Your task to perform on an android device: Go to CNN.com Image 0: 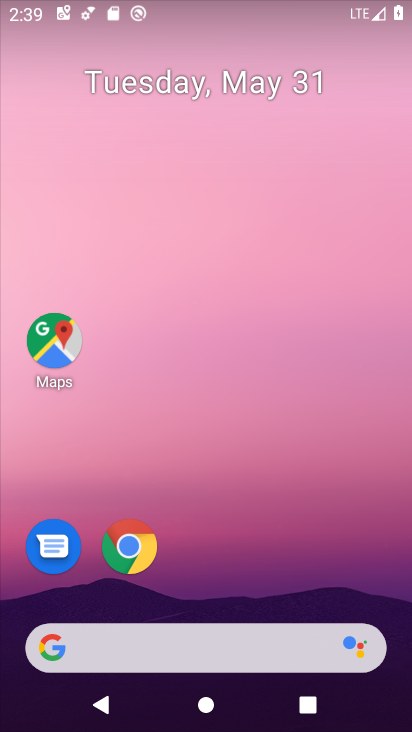
Step 0: click (156, 547)
Your task to perform on an android device: Go to CNN.com Image 1: 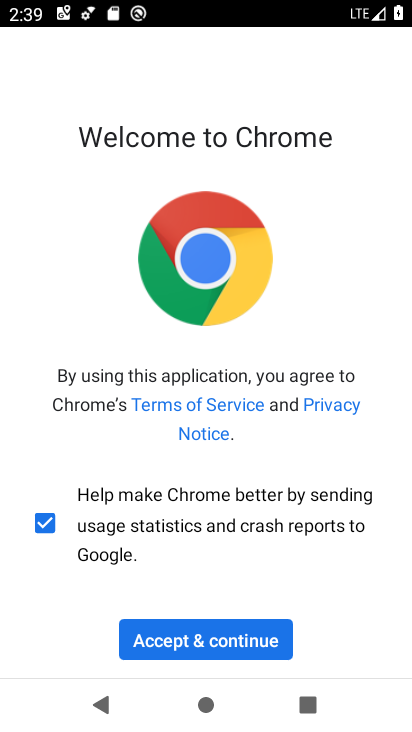
Step 1: click (251, 629)
Your task to perform on an android device: Go to CNN.com Image 2: 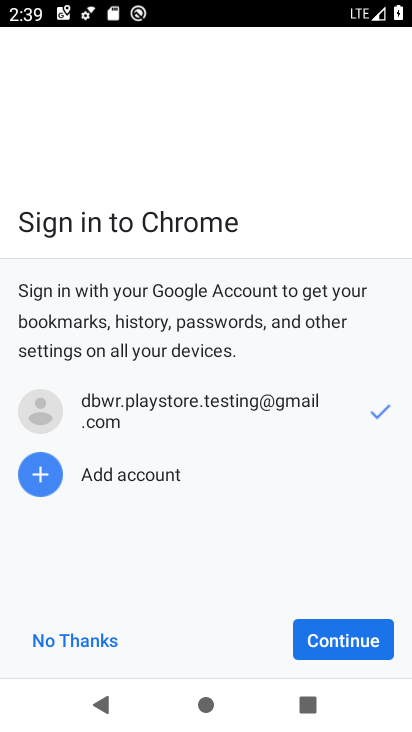
Step 2: click (353, 626)
Your task to perform on an android device: Go to CNN.com Image 3: 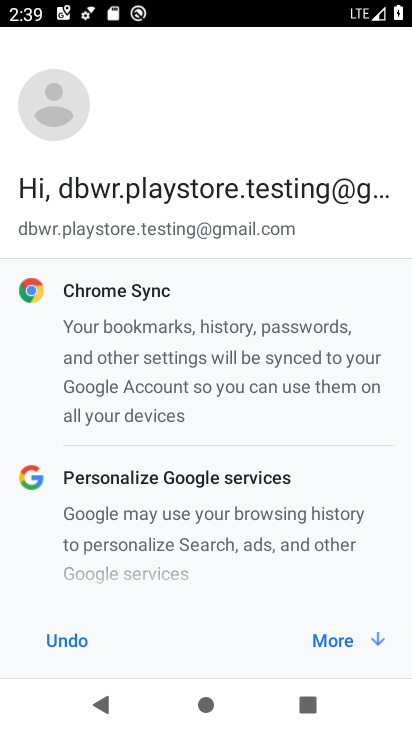
Step 3: click (345, 631)
Your task to perform on an android device: Go to CNN.com Image 4: 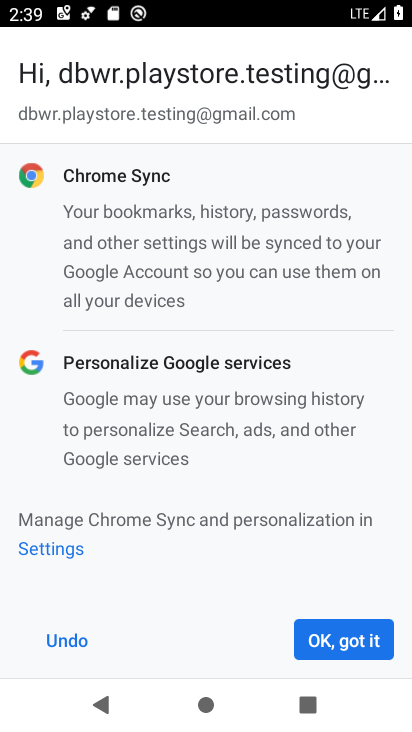
Step 4: click (358, 629)
Your task to perform on an android device: Go to CNN.com Image 5: 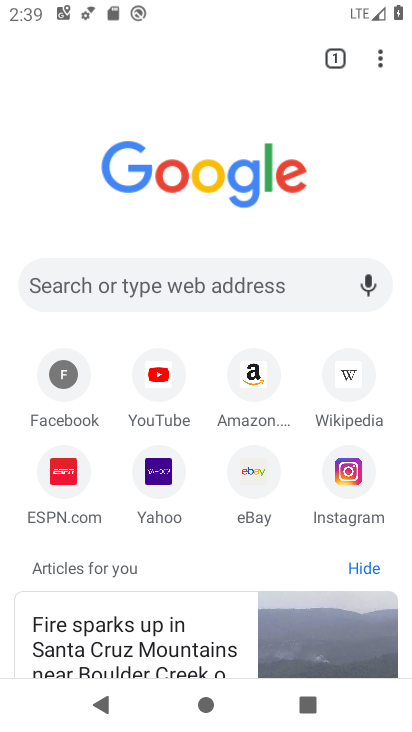
Step 5: click (165, 283)
Your task to perform on an android device: Go to CNN.com Image 6: 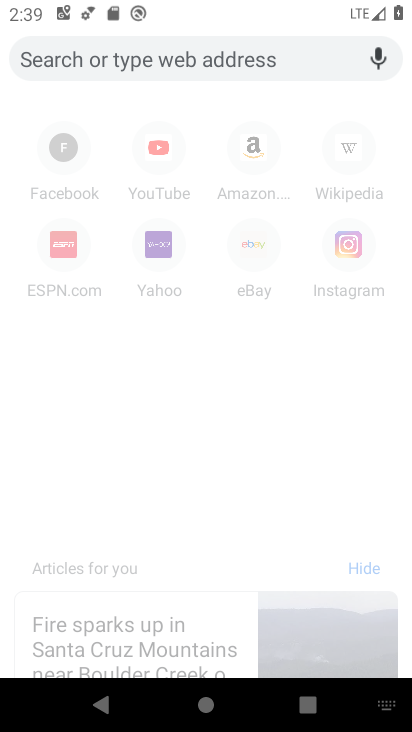
Step 6: type "CNN.com"
Your task to perform on an android device: Go to CNN.com Image 7: 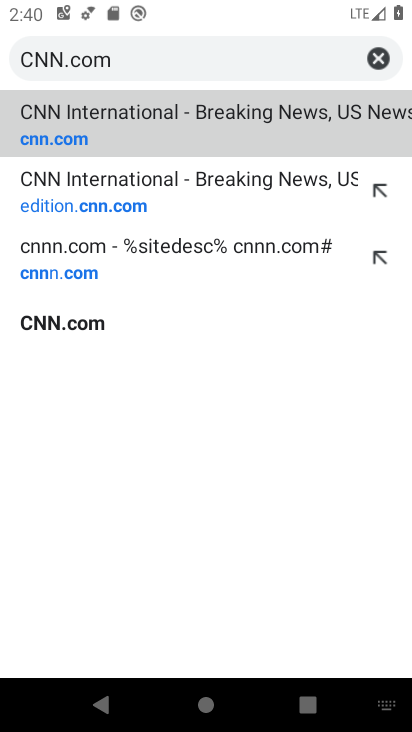
Step 7: click (289, 133)
Your task to perform on an android device: Go to CNN.com Image 8: 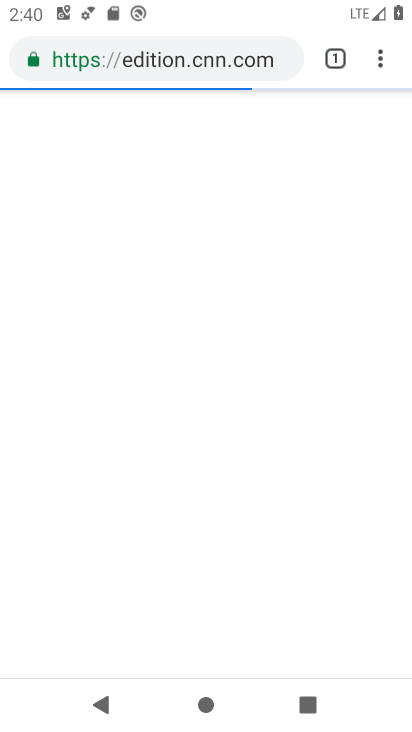
Step 8: task complete